Your task to perform on an android device: open a bookmark in the chrome app Image 0: 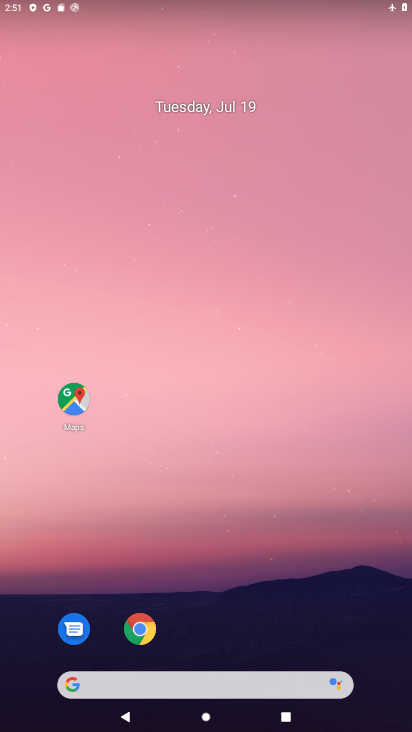
Step 0: drag from (350, 591) to (288, 25)
Your task to perform on an android device: open a bookmark in the chrome app Image 1: 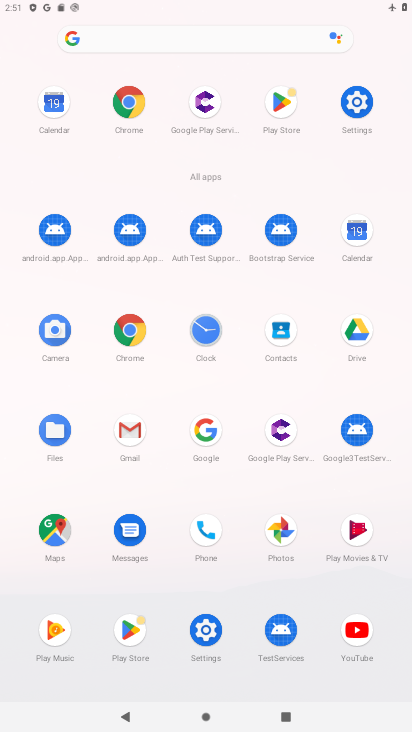
Step 1: click (122, 103)
Your task to perform on an android device: open a bookmark in the chrome app Image 2: 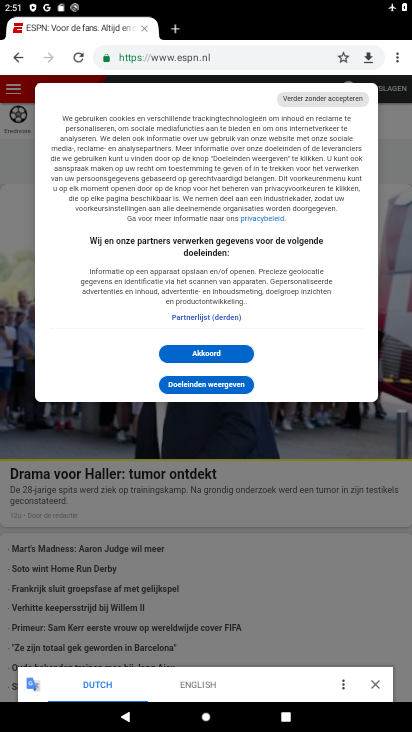
Step 2: click (397, 59)
Your task to perform on an android device: open a bookmark in the chrome app Image 3: 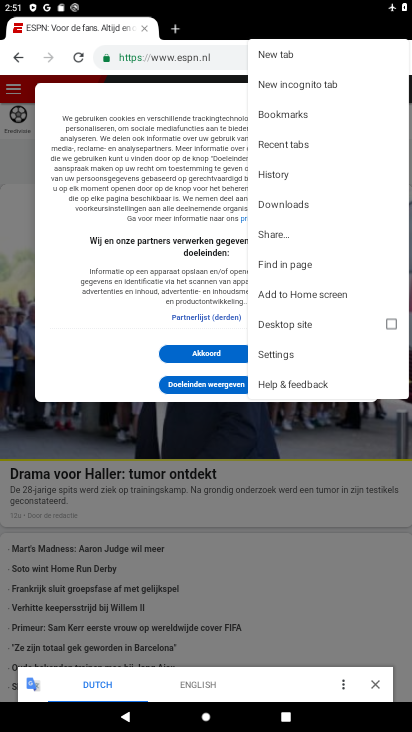
Step 3: click (313, 114)
Your task to perform on an android device: open a bookmark in the chrome app Image 4: 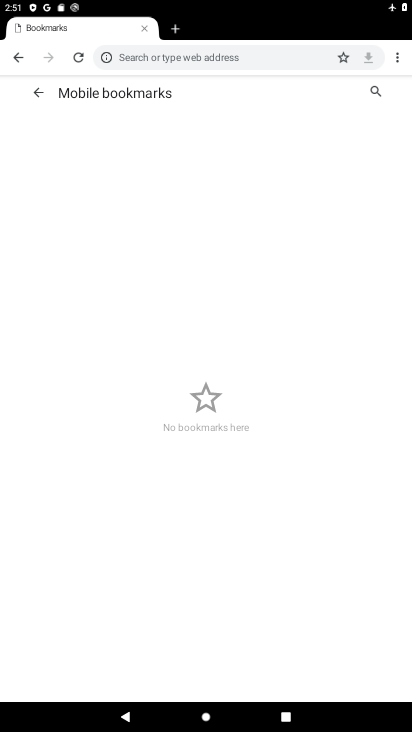
Step 4: task complete